Your task to perform on an android device: check storage Image 0: 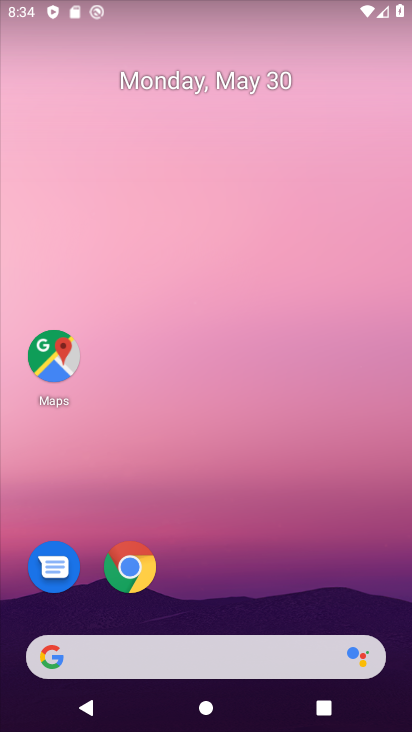
Step 0: drag from (282, 584) to (289, 168)
Your task to perform on an android device: check storage Image 1: 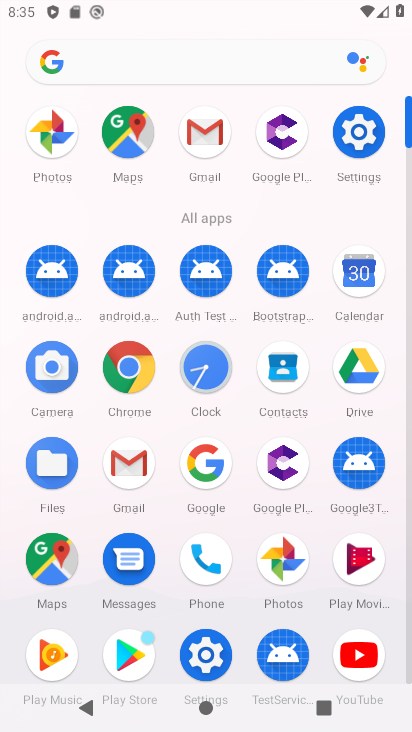
Step 1: click (367, 135)
Your task to perform on an android device: check storage Image 2: 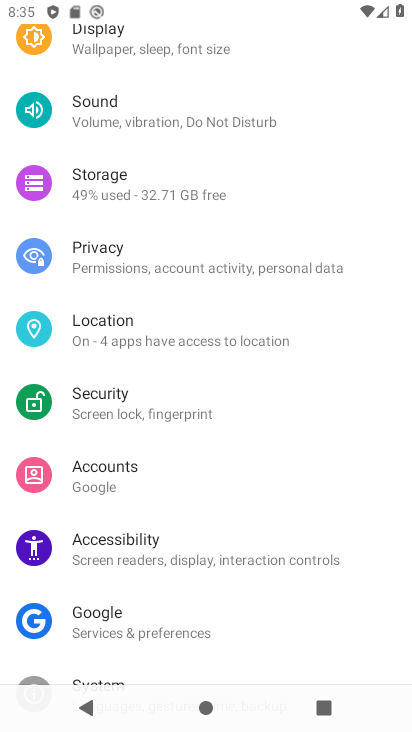
Step 2: click (179, 197)
Your task to perform on an android device: check storage Image 3: 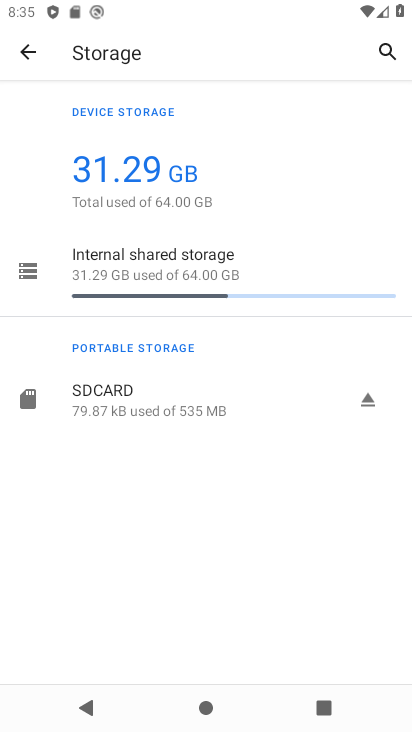
Step 3: task complete